Your task to perform on an android device: toggle improve location accuracy Image 0: 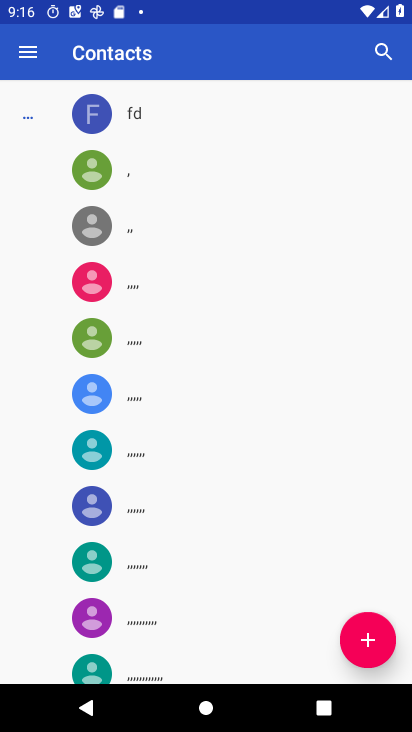
Step 0: press home button
Your task to perform on an android device: toggle improve location accuracy Image 1: 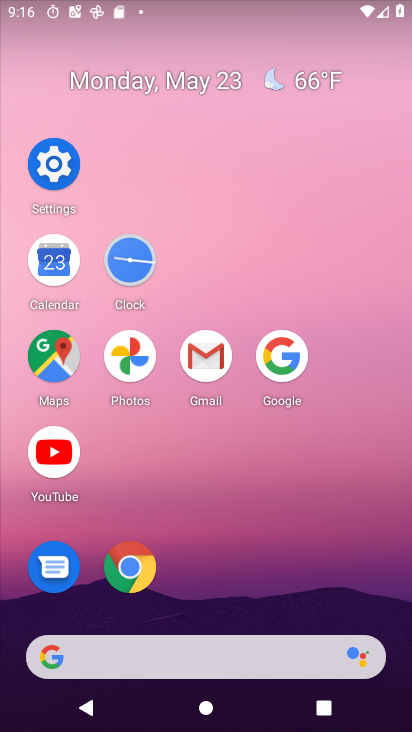
Step 1: click (44, 176)
Your task to perform on an android device: toggle improve location accuracy Image 2: 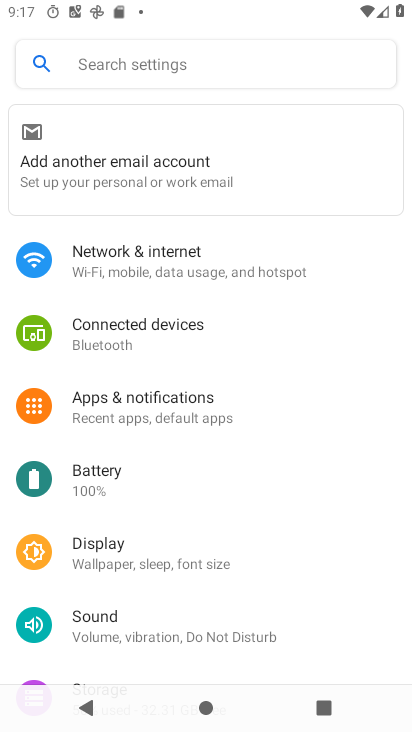
Step 2: drag from (157, 517) to (226, 202)
Your task to perform on an android device: toggle improve location accuracy Image 3: 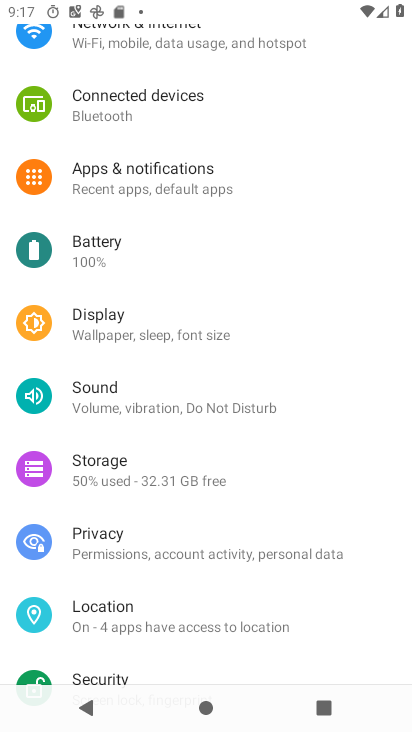
Step 3: drag from (174, 637) to (219, 280)
Your task to perform on an android device: toggle improve location accuracy Image 4: 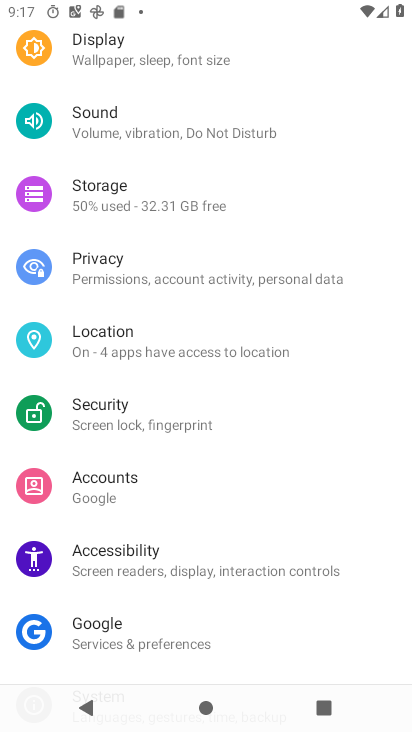
Step 4: click (210, 342)
Your task to perform on an android device: toggle improve location accuracy Image 5: 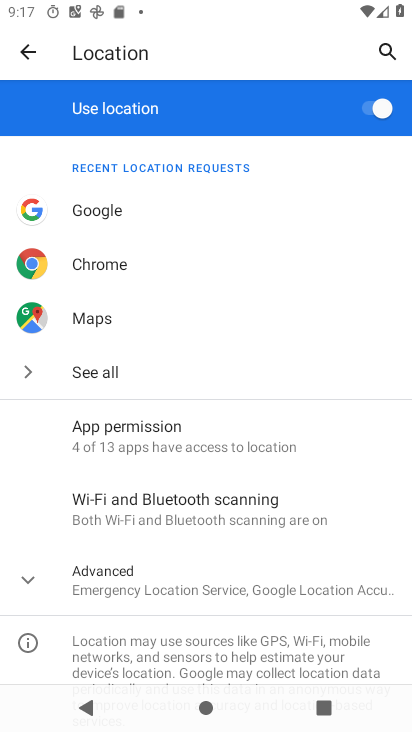
Step 5: drag from (199, 565) to (263, 279)
Your task to perform on an android device: toggle improve location accuracy Image 6: 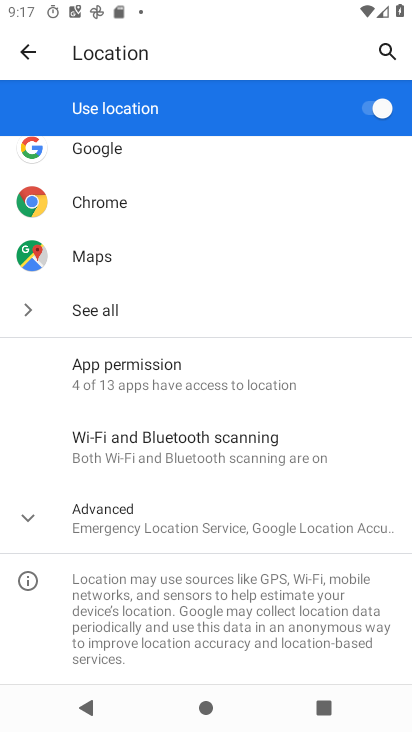
Step 6: click (183, 514)
Your task to perform on an android device: toggle improve location accuracy Image 7: 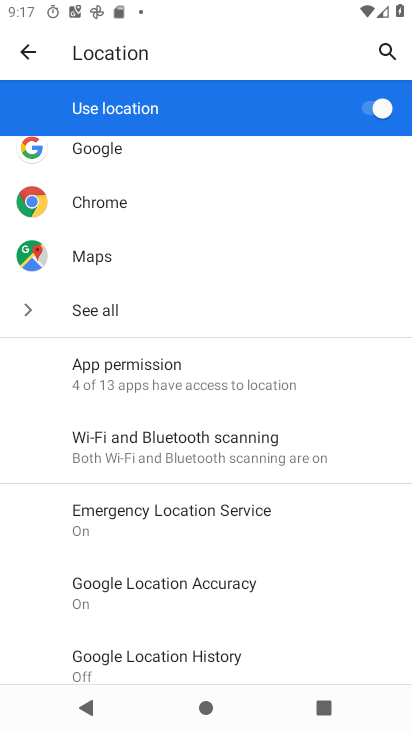
Step 7: click (183, 578)
Your task to perform on an android device: toggle improve location accuracy Image 8: 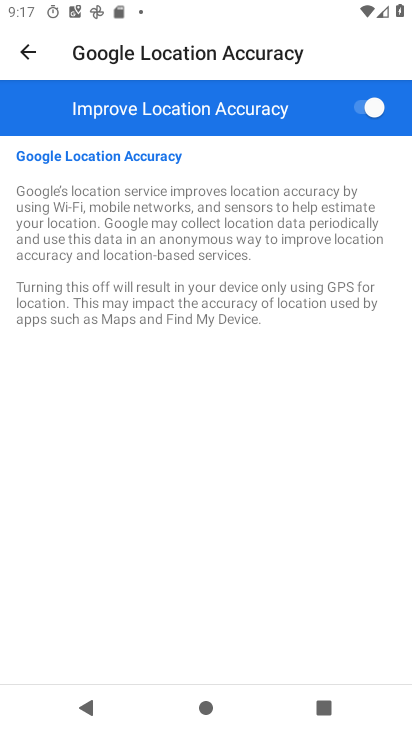
Step 8: click (349, 104)
Your task to perform on an android device: toggle improve location accuracy Image 9: 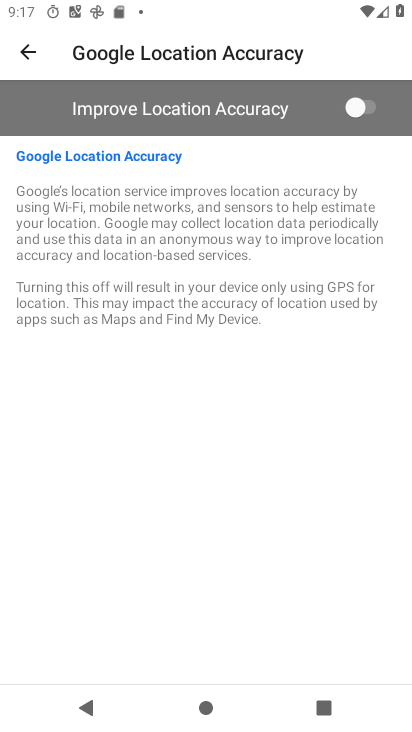
Step 9: task complete